Your task to perform on an android device: Go to Yahoo.com Image 0: 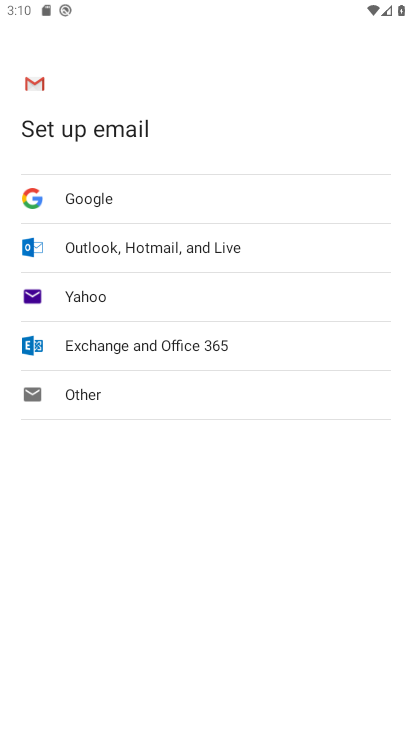
Step 0: click (401, 591)
Your task to perform on an android device: Go to Yahoo.com Image 1: 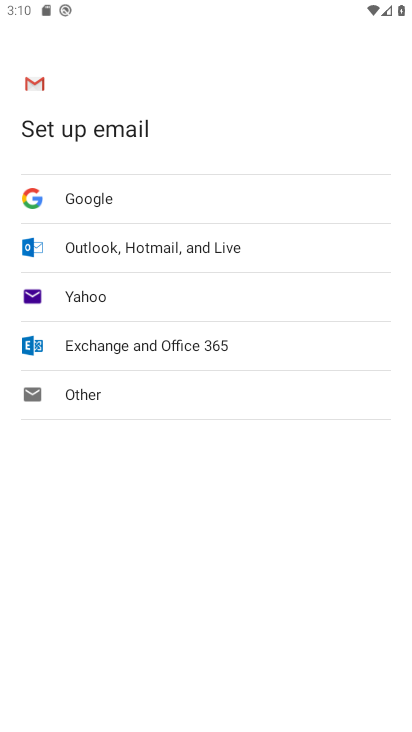
Step 1: press home button
Your task to perform on an android device: Go to Yahoo.com Image 2: 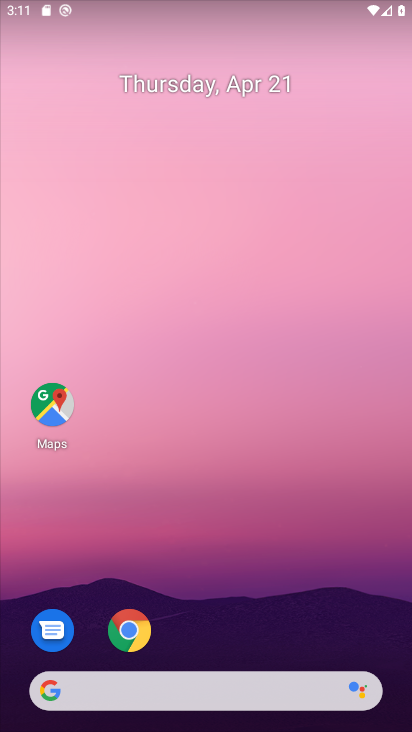
Step 2: drag from (207, 606) to (286, 95)
Your task to perform on an android device: Go to Yahoo.com Image 3: 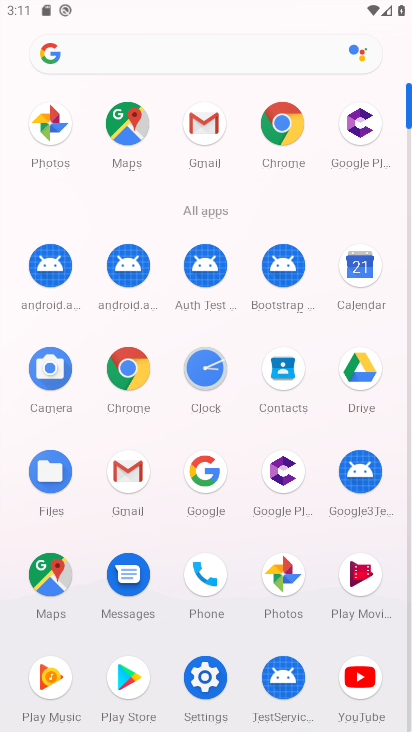
Step 3: click (118, 469)
Your task to perform on an android device: Go to Yahoo.com Image 4: 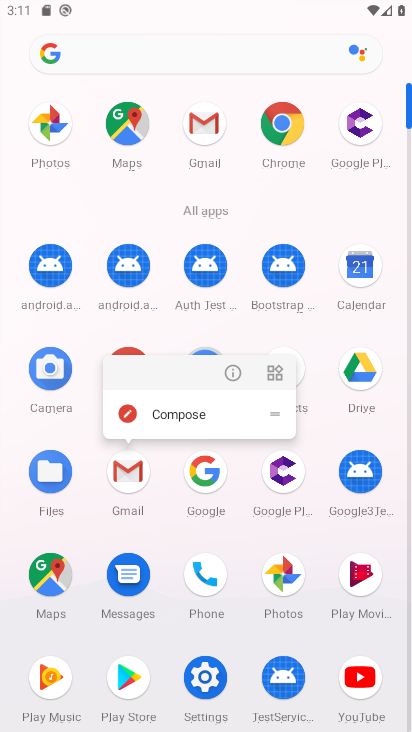
Step 4: click (238, 365)
Your task to perform on an android device: Go to Yahoo.com Image 5: 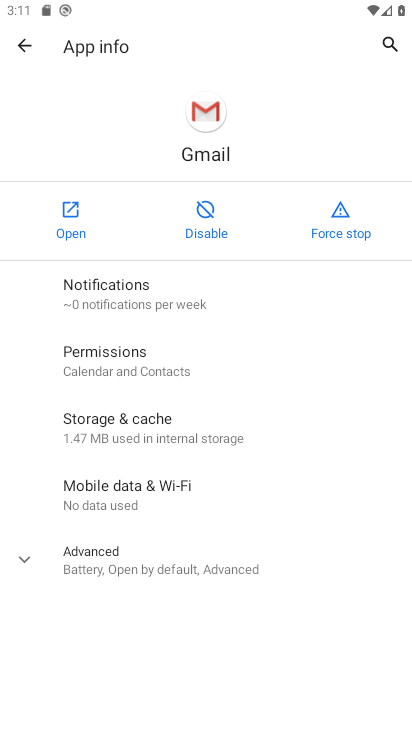
Step 5: click (71, 213)
Your task to perform on an android device: Go to Yahoo.com Image 6: 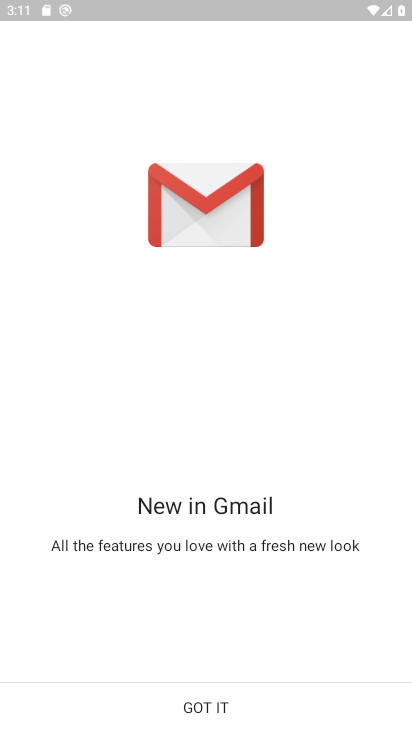
Step 6: click (187, 708)
Your task to perform on an android device: Go to Yahoo.com Image 7: 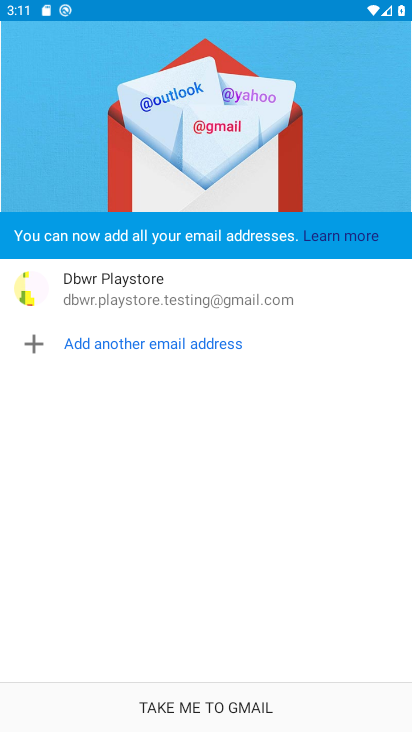
Step 7: click (186, 706)
Your task to perform on an android device: Go to Yahoo.com Image 8: 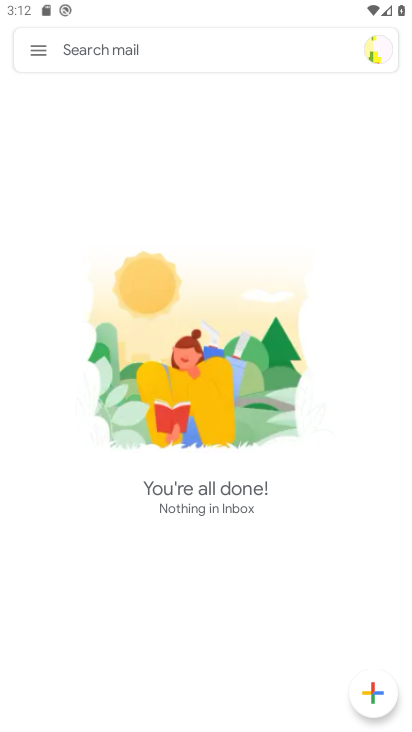
Step 8: drag from (226, 418) to (136, 0)
Your task to perform on an android device: Go to Yahoo.com Image 9: 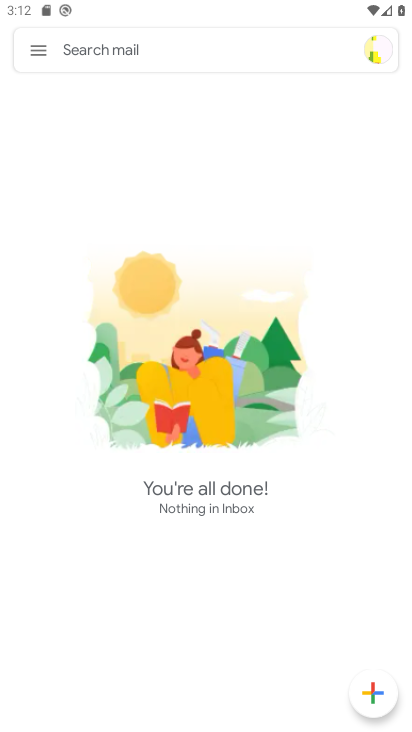
Step 9: press home button
Your task to perform on an android device: Go to Yahoo.com Image 10: 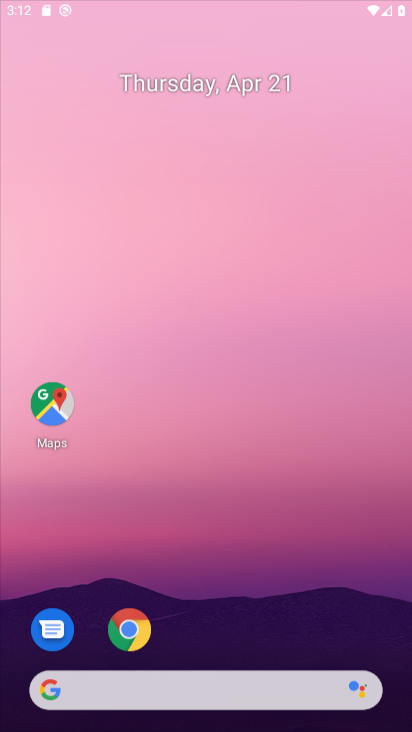
Step 10: drag from (229, 563) to (346, 82)
Your task to perform on an android device: Go to Yahoo.com Image 11: 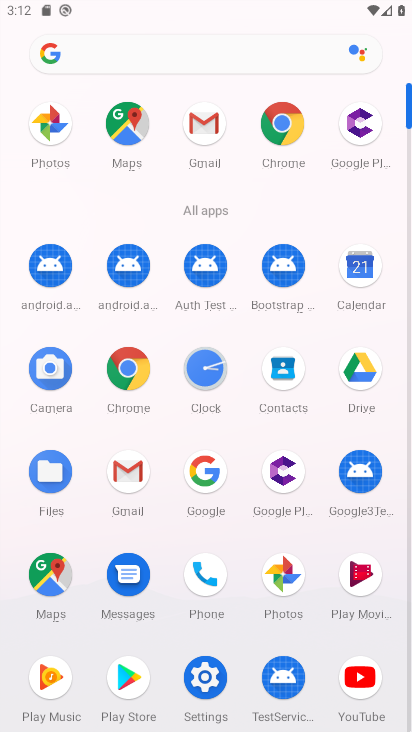
Step 11: click (128, 364)
Your task to perform on an android device: Go to Yahoo.com Image 12: 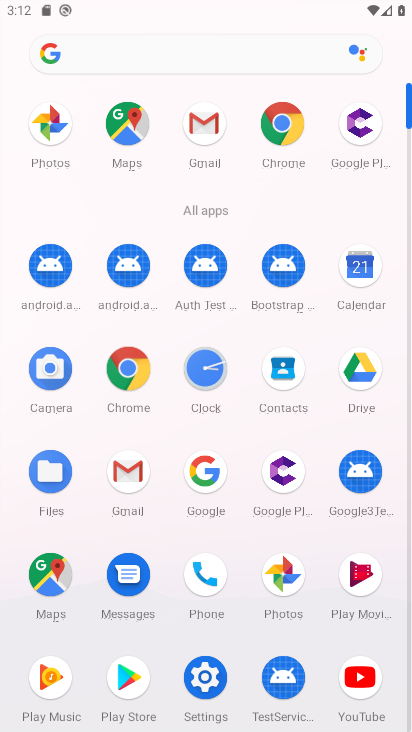
Step 12: click (128, 362)
Your task to perform on an android device: Go to Yahoo.com Image 13: 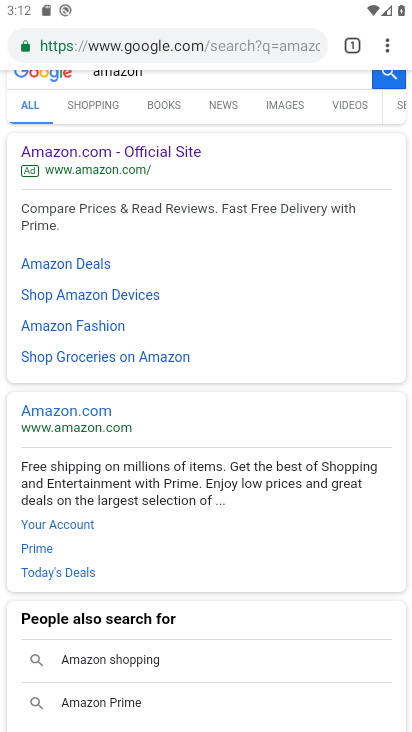
Step 13: click (181, 50)
Your task to perform on an android device: Go to Yahoo.com Image 14: 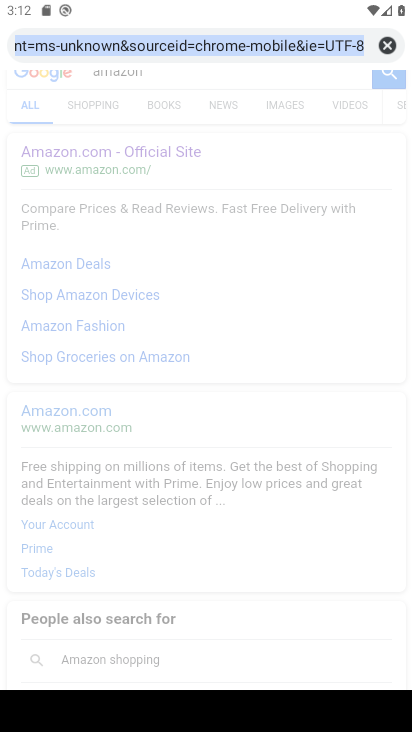
Step 14: click (391, 46)
Your task to perform on an android device: Go to Yahoo.com Image 15: 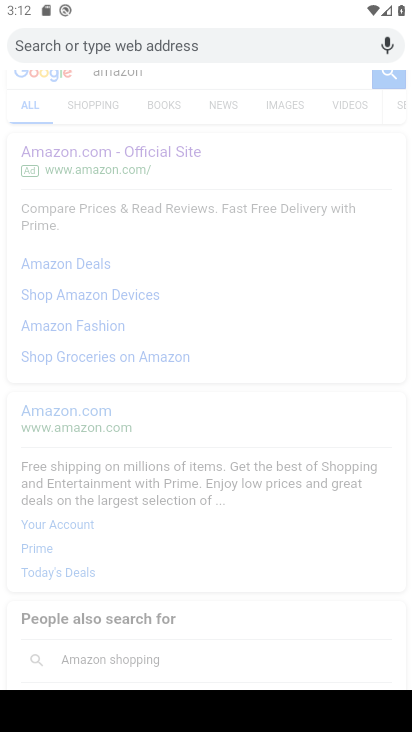
Step 15: click (59, 41)
Your task to perform on an android device: Go to Yahoo.com Image 16: 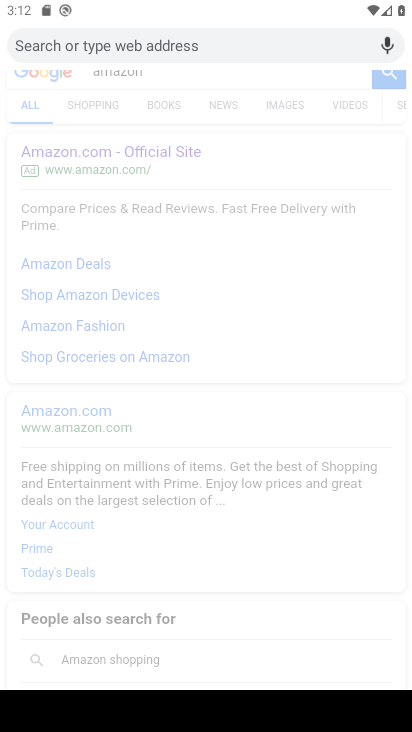
Step 16: type "yahoo.com"
Your task to perform on an android device: Go to Yahoo.com Image 17: 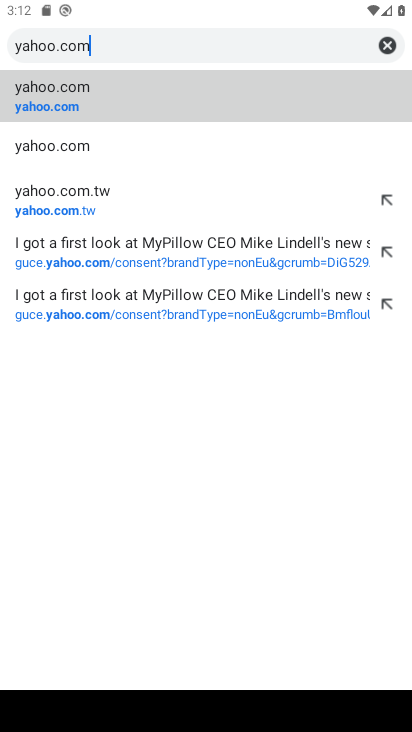
Step 17: click (39, 84)
Your task to perform on an android device: Go to Yahoo.com Image 18: 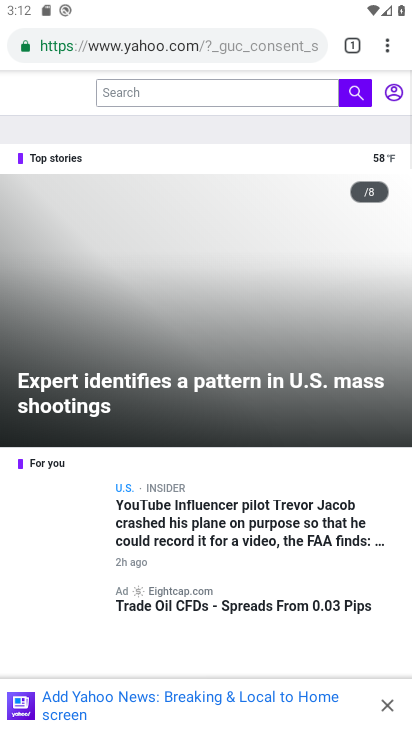
Step 18: task complete